Your task to perform on an android device: turn off smart reply in the gmail app Image 0: 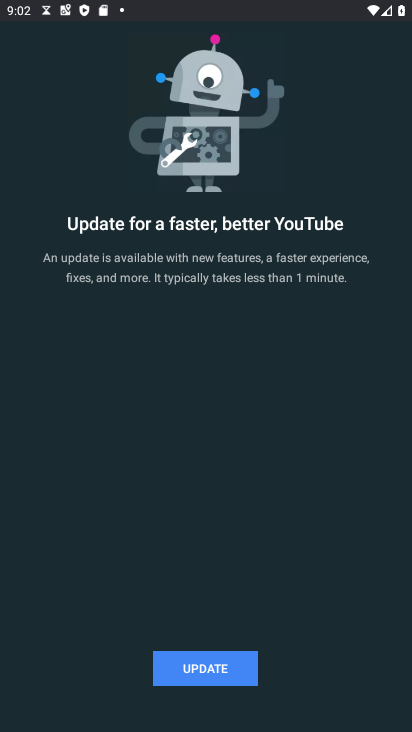
Step 0: press home button
Your task to perform on an android device: turn off smart reply in the gmail app Image 1: 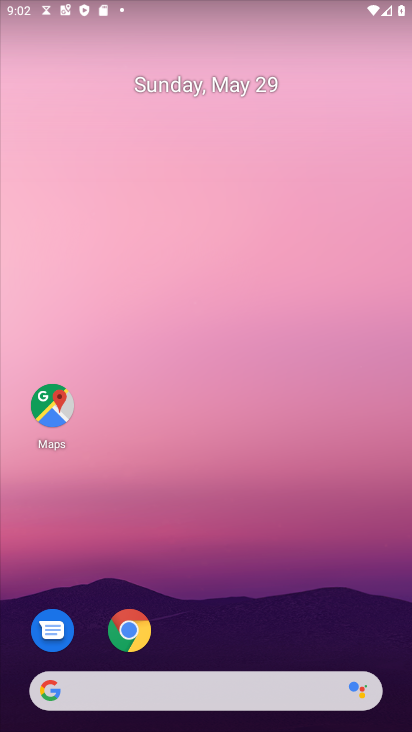
Step 1: drag from (259, 657) to (195, 96)
Your task to perform on an android device: turn off smart reply in the gmail app Image 2: 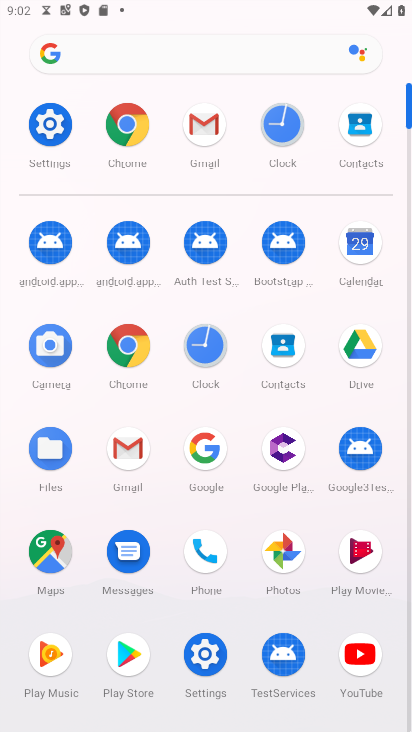
Step 2: click (211, 125)
Your task to perform on an android device: turn off smart reply in the gmail app Image 3: 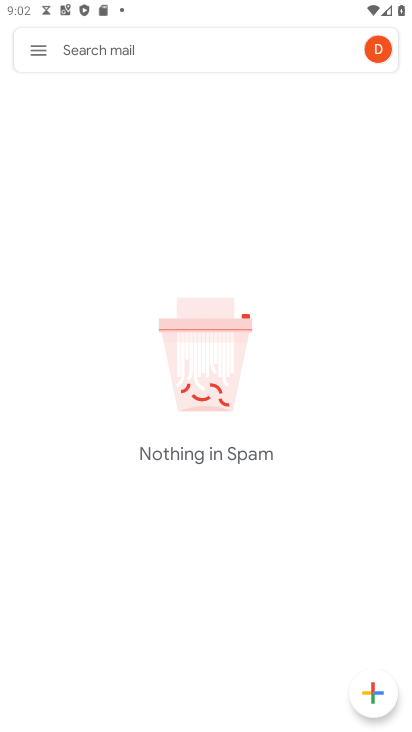
Step 3: click (36, 50)
Your task to perform on an android device: turn off smart reply in the gmail app Image 4: 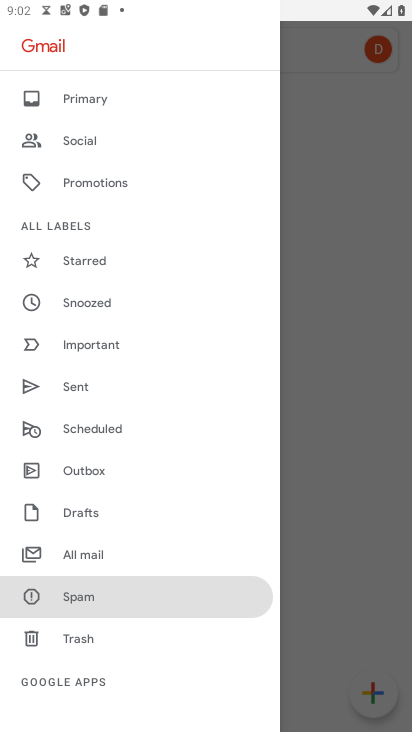
Step 4: drag from (115, 671) to (124, 444)
Your task to perform on an android device: turn off smart reply in the gmail app Image 5: 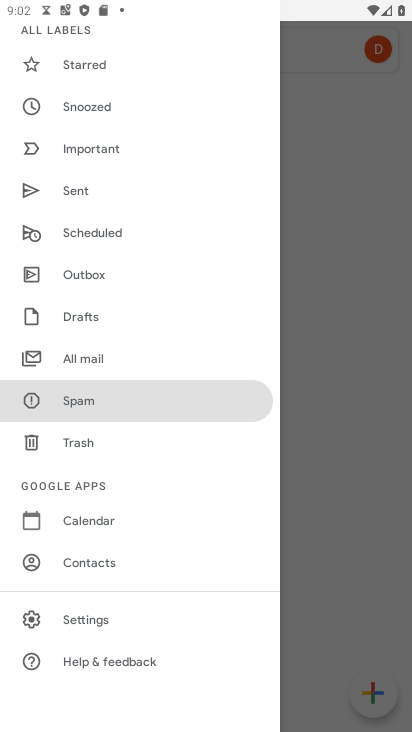
Step 5: click (90, 618)
Your task to perform on an android device: turn off smart reply in the gmail app Image 6: 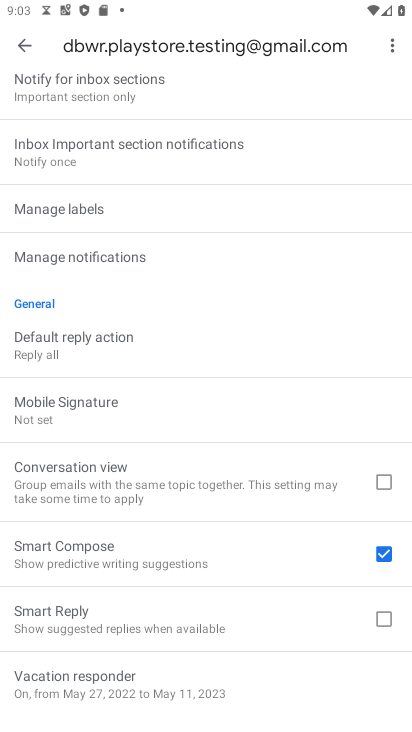
Step 6: task complete